Your task to perform on an android device: open app "Life360: Find Family & Friends" (install if not already installed) Image 0: 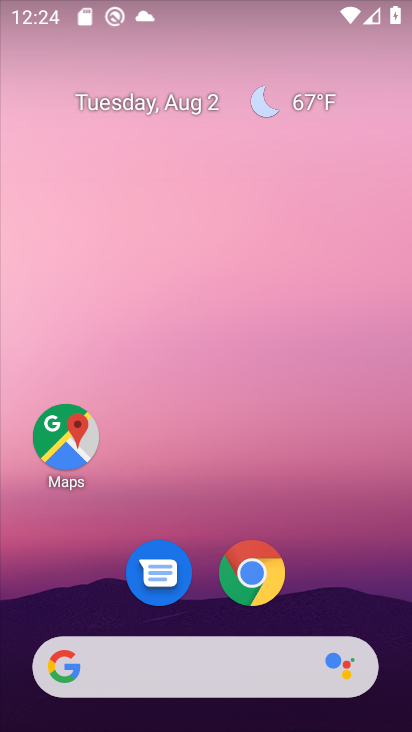
Step 0: drag from (185, 644) to (175, 98)
Your task to perform on an android device: open app "Life360: Find Family & Friends" (install if not already installed) Image 1: 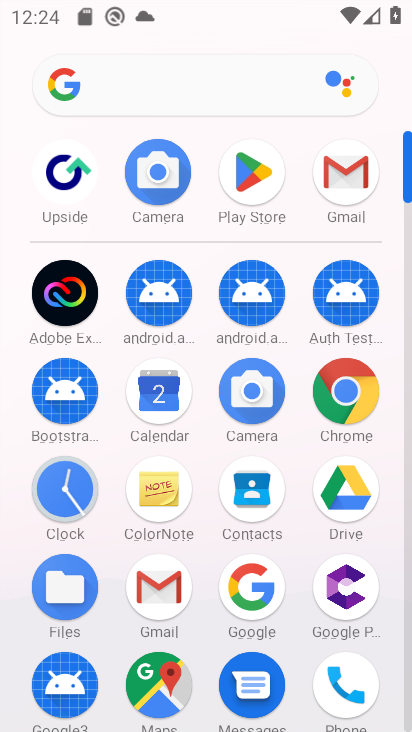
Step 1: click (252, 185)
Your task to perform on an android device: open app "Life360: Find Family & Friends" (install if not already installed) Image 2: 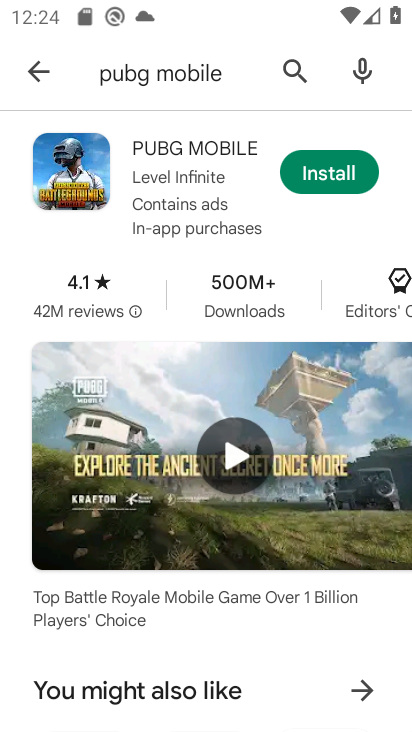
Step 2: click (292, 64)
Your task to perform on an android device: open app "Life360: Find Family & Friends" (install if not already installed) Image 3: 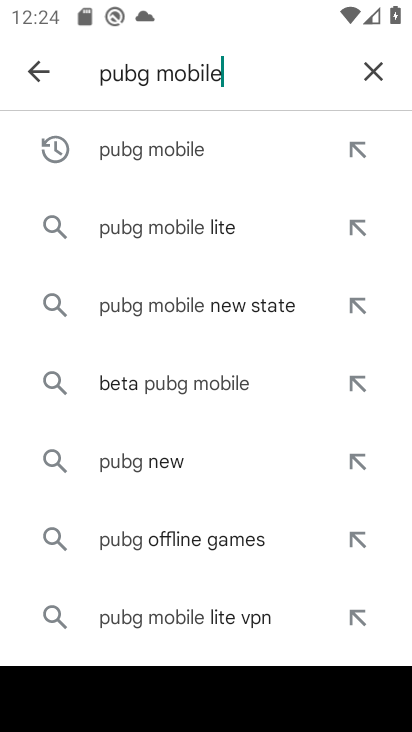
Step 3: click (378, 63)
Your task to perform on an android device: open app "Life360: Find Family & Friends" (install if not already installed) Image 4: 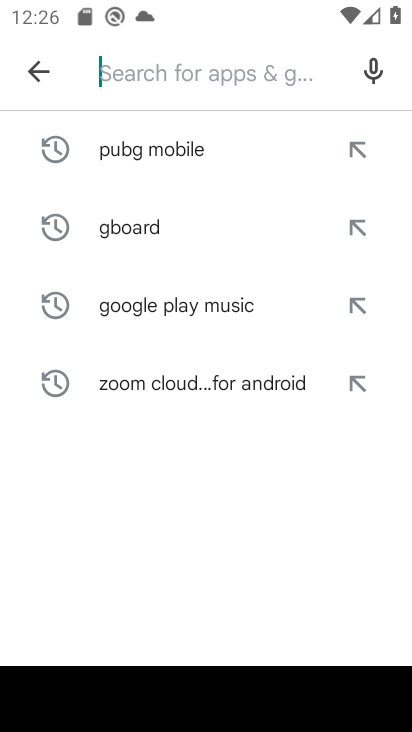
Step 4: type "life360: find family & friends"
Your task to perform on an android device: open app "Life360: Find Family & Friends" (install if not already installed) Image 5: 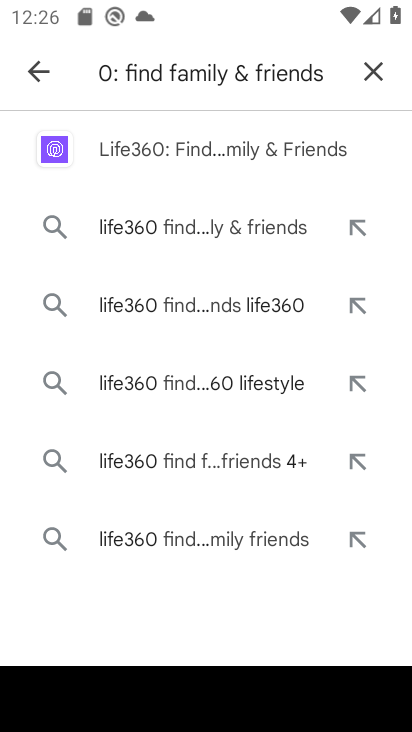
Step 5: click (289, 134)
Your task to perform on an android device: open app "Life360: Find Family & Friends" (install if not already installed) Image 6: 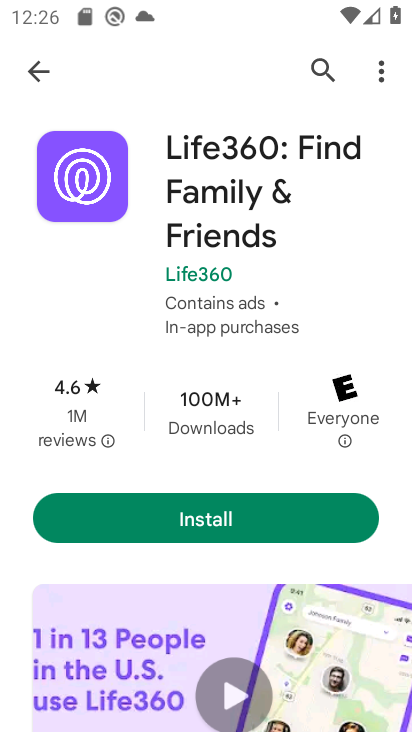
Step 6: click (219, 507)
Your task to perform on an android device: open app "Life360: Find Family & Friends" (install if not already installed) Image 7: 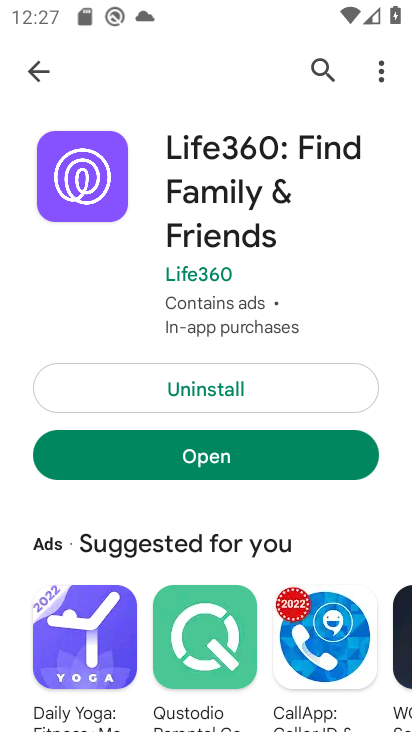
Step 7: task complete